Your task to perform on an android device: change the clock display to show seconds Image 0: 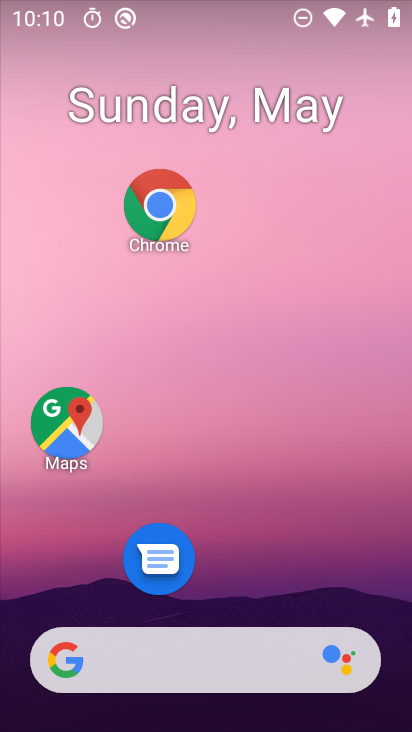
Step 0: press home button
Your task to perform on an android device: change the clock display to show seconds Image 1: 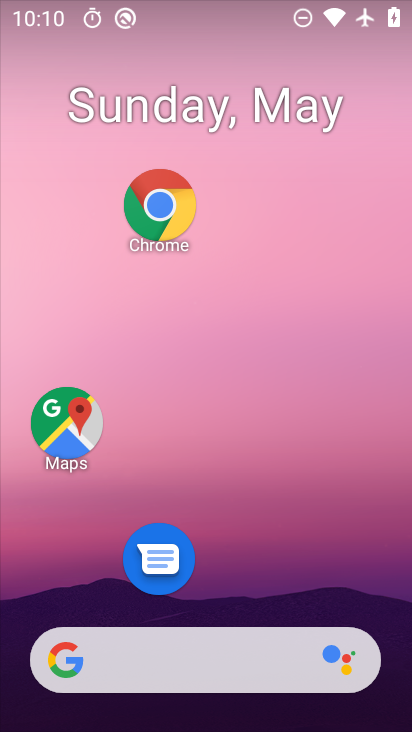
Step 1: drag from (314, 601) to (312, 311)
Your task to perform on an android device: change the clock display to show seconds Image 2: 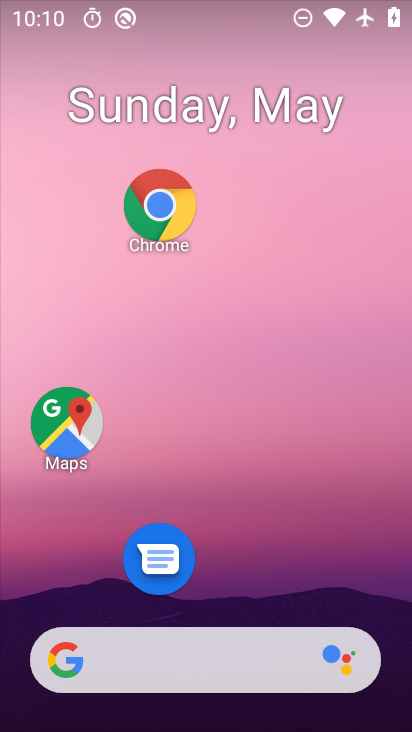
Step 2: drag from (282, 617) to (263, 370)
Your task to perform on an android device: change the clock display to show seconds Image 3: 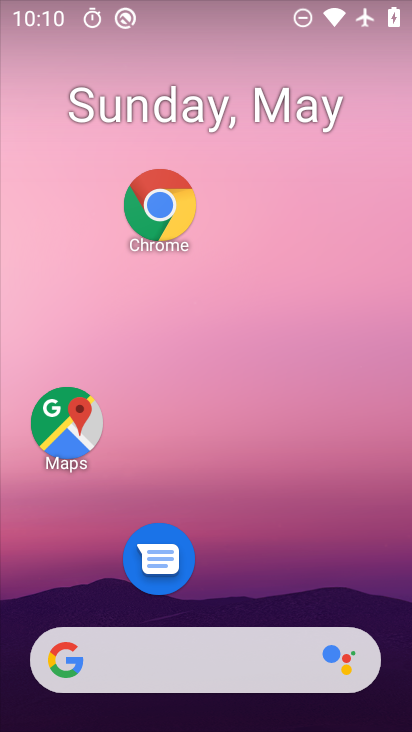
Step 3: drag from (325, 610) to (239, 35)
Your task to perform on an android device: change the clock display to show seconds Image 4: 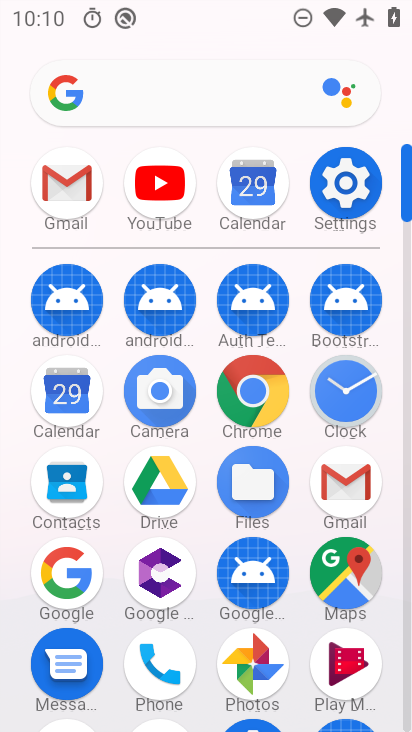
Step 4: click (341, 406)
Your task to perform on an android device: change the clock display to show seconds Image 5: 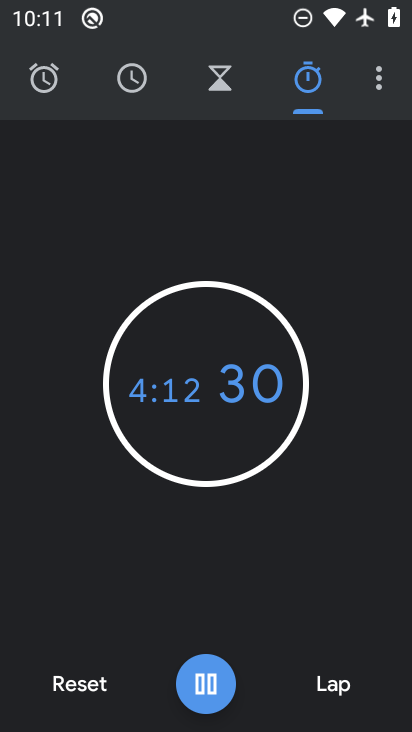
Step 5: click (383, 75)
Your task to perform on an android device: change the clock display to show seconds Image 6: 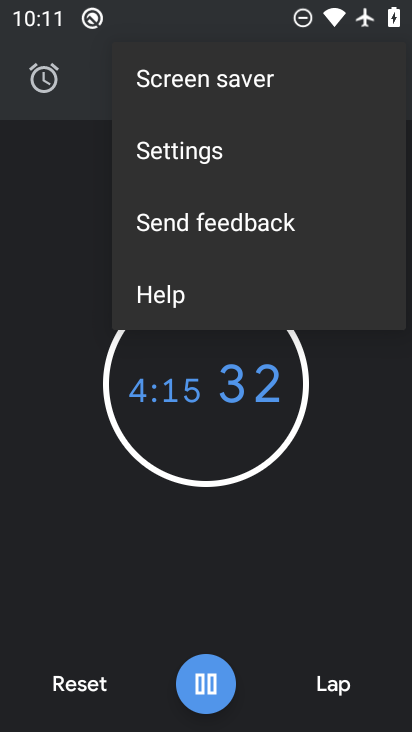
Step 6: click (186, 156)
Your task to perform on an android device: change the clock display to show seconds Image 7: 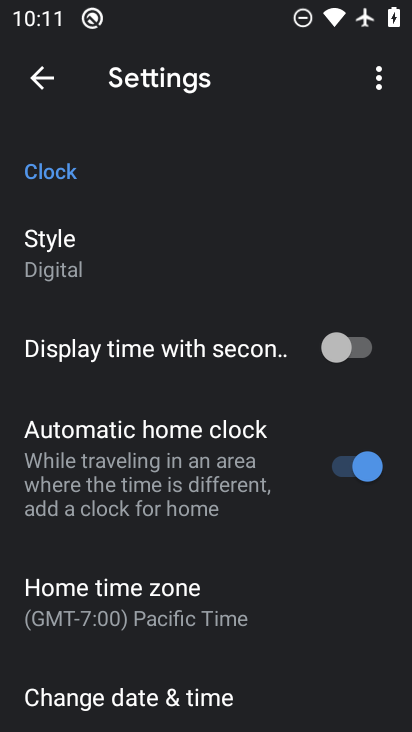
Step 7: click (340, 356)
Your task to perform on an android device: change the clock display to show seconds Image 8: 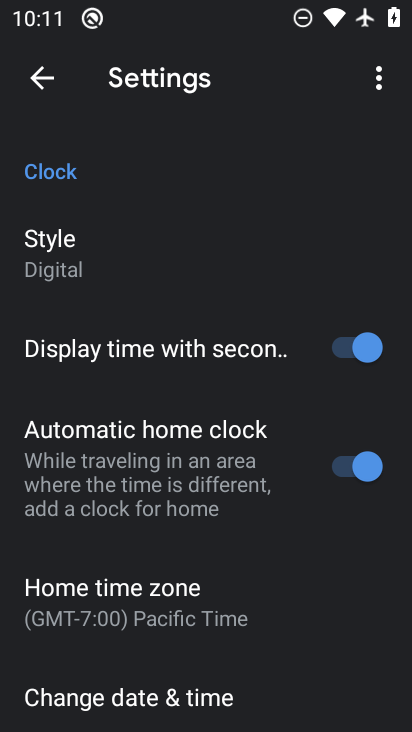
Step 8: task complete